Your task to perform on an android device: What's on my calendar today? Image 0: 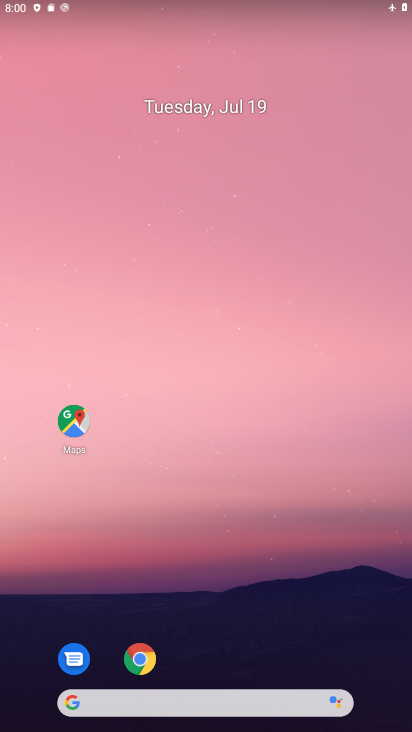
Step 0: click (172, 103)
Your task to perform on an android device: What's on my calendar today? Image 1: 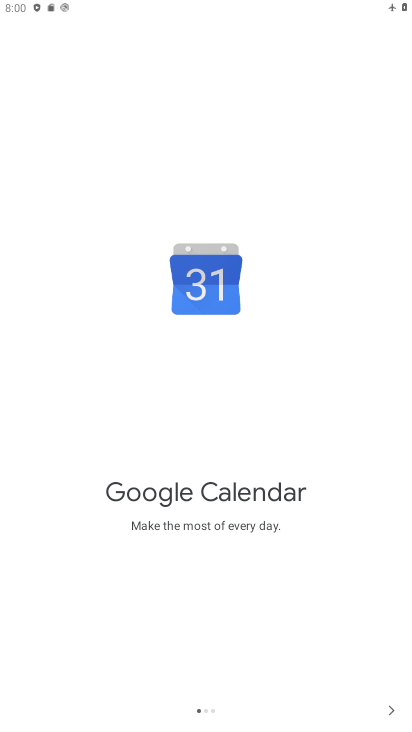
Step 1: click (394, 714)
Your task to perform on an android device: What's on my calendar today? Image 2: 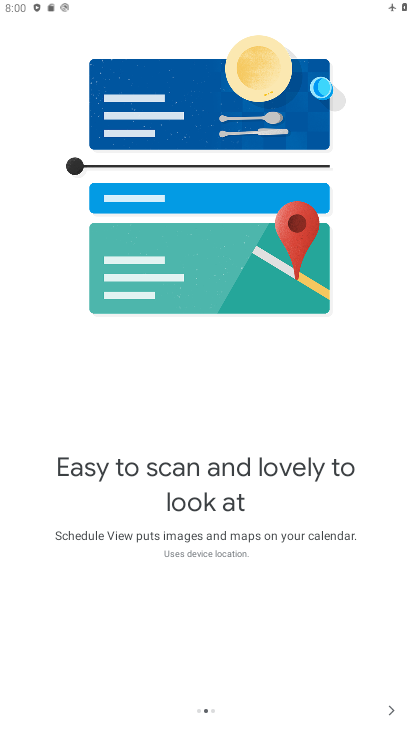
Step 2: click (394, 714)
Your task to perform on an android device: What's on my calendar today? Image 3: 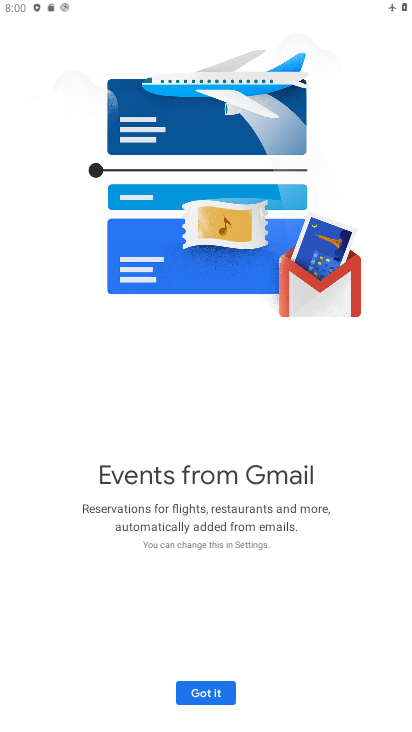
Step 3: click (394, 714)
Your task to perform on an android device: What's on my calendar today? Image 4: 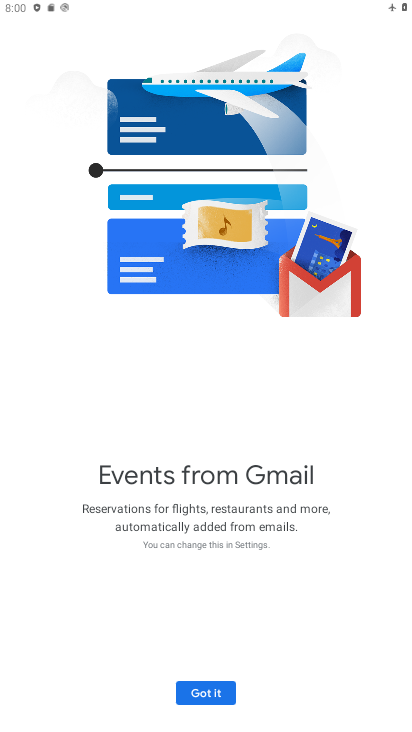
Step 4: click (191, 702)
Your task to perform on an android device: What's on my calendar today? Image 5: 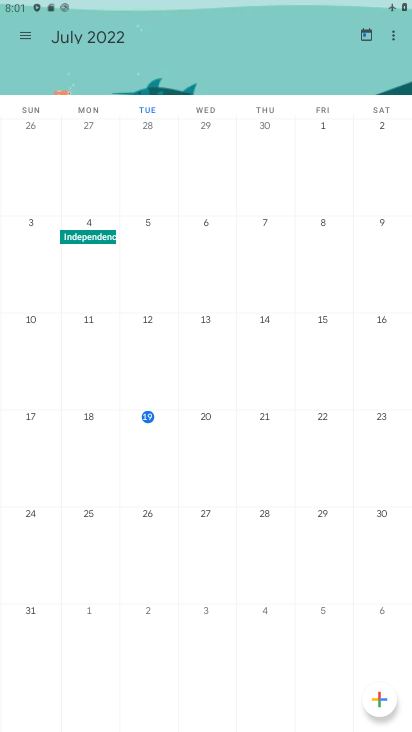
Step 5: task complete